Your task to perform on an android device: turn off location Image 0: 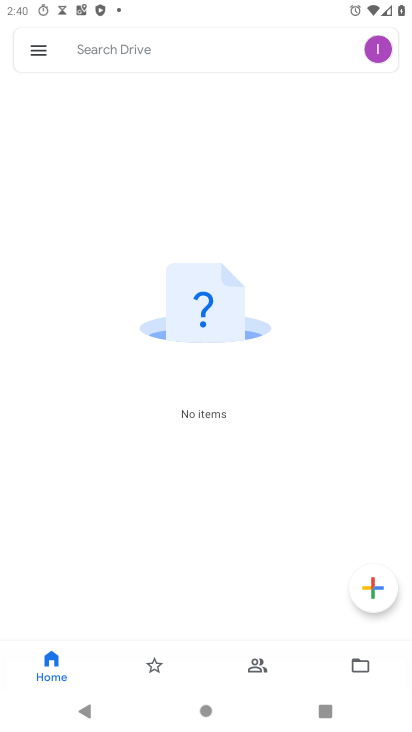
Step 0: press home button
Your task to perform on an android device: turn off location Image 1: 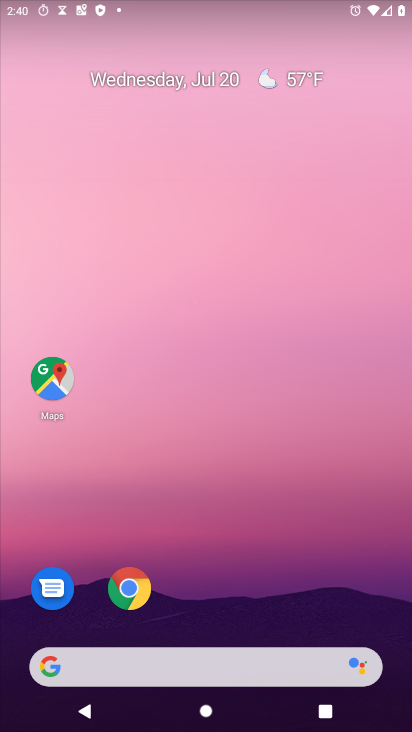
Step 1: drag from (297, 437) to (278, 1)
Your task to perform on an android device: turn off location Image 2: 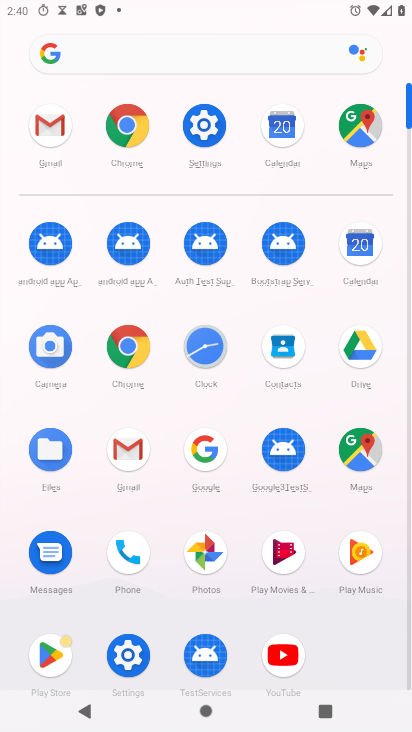
Step 2: click (205, 132)
Your task to perform on an android device: turn off location Image 3: 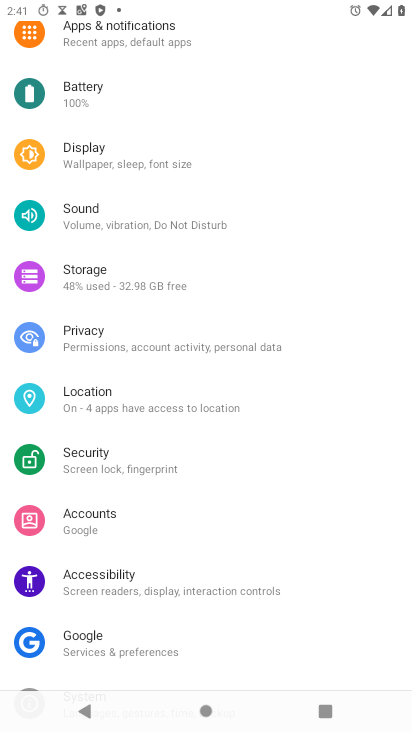
Step 3: drag from (141, 154) to (139, 294)
Your task to perform on an android device: turn off location Image 4: 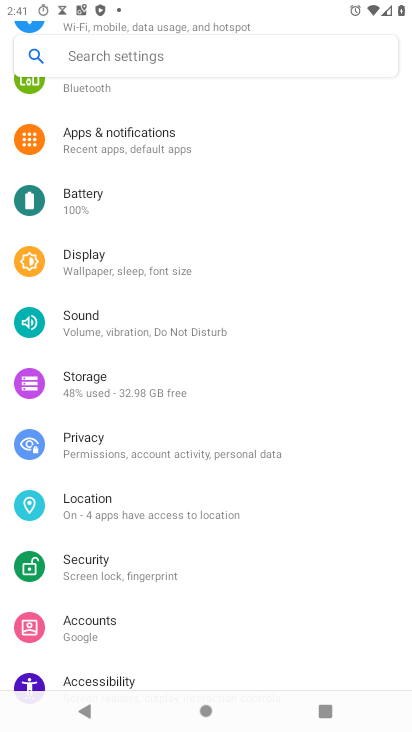
Step 4: click (160, 513)
Your task to perform on an android device: turn off location Image 5: 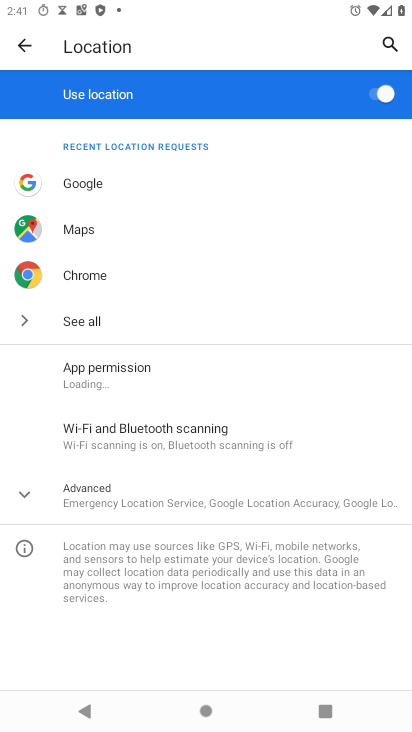
Step 5: click (392, 101)
Your task to perform on an android device: turn off location Image 6: 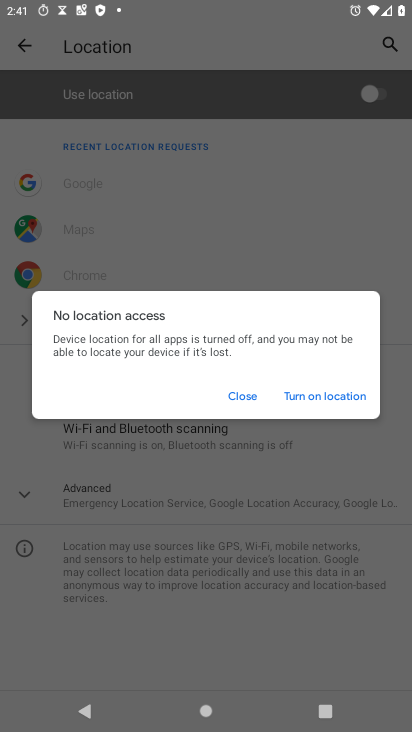
Step 6: task complete